Your task to perform on an android device: turn off notifications settings in the gmail app Image 0: 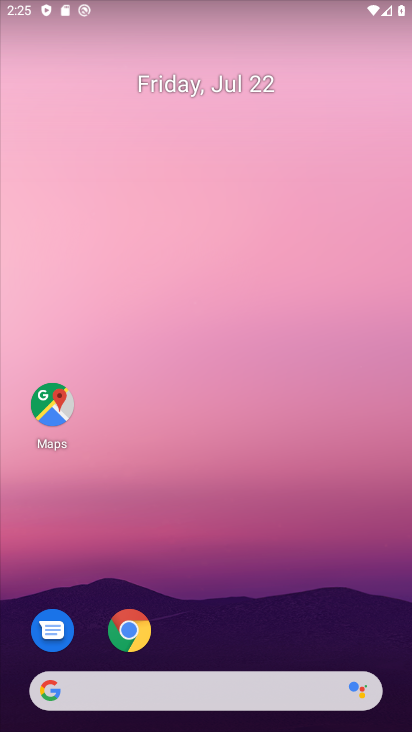
Step 0: drag from (328, 622) to (226, 171)
Your task to perform on an android device: turn off notifications settings in the gmail app Image 1: 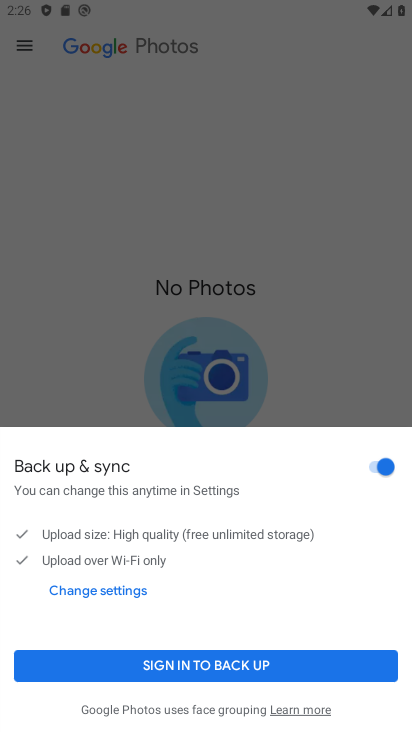
Step 1: press home button
Your task to perform on an android device: turn off notifications settings in the gmail app Image 2: 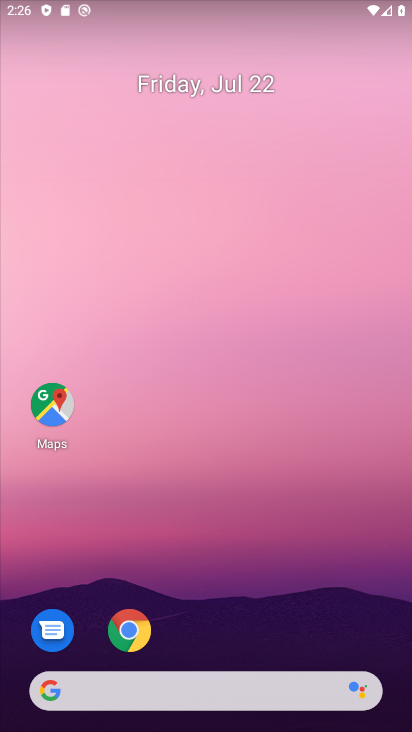
Step 2: drag from (271, 654) to (206, 278)
Your task to perform on an android device: turn off notifications settings in the gmail app Image 3: 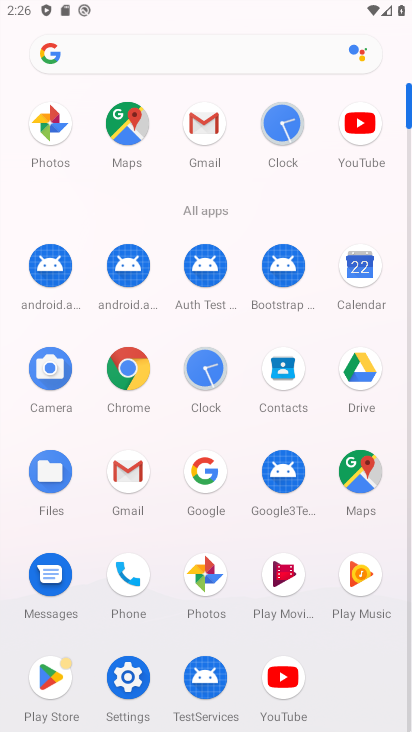
Step 3: click (211, 118)
Your task to perform on an android device: turn off notifications settings in the gmail app Image 4: 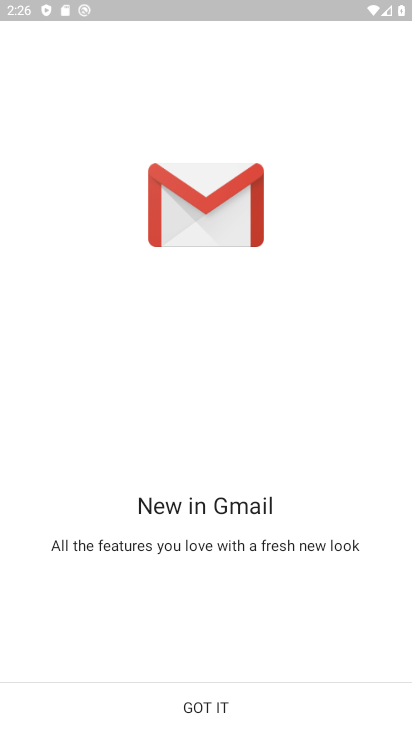
Step 4: click (228, 695)
Your task to perform on an android device: turn off notifications settings in the gmail app Image 5: 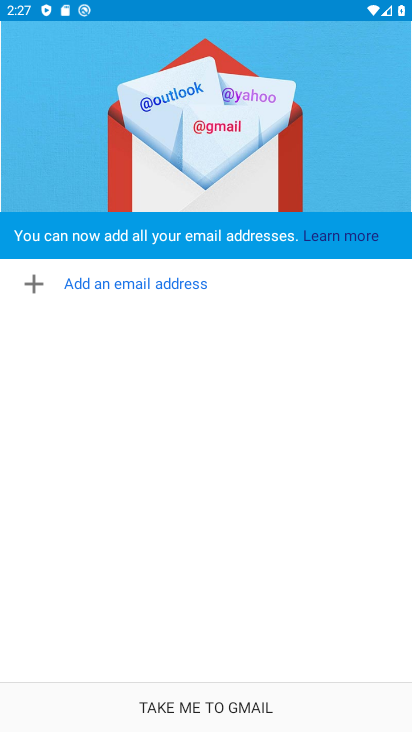
Step 5: task complete